Your task to perform on an android device: change the clock display to digital Image 0: 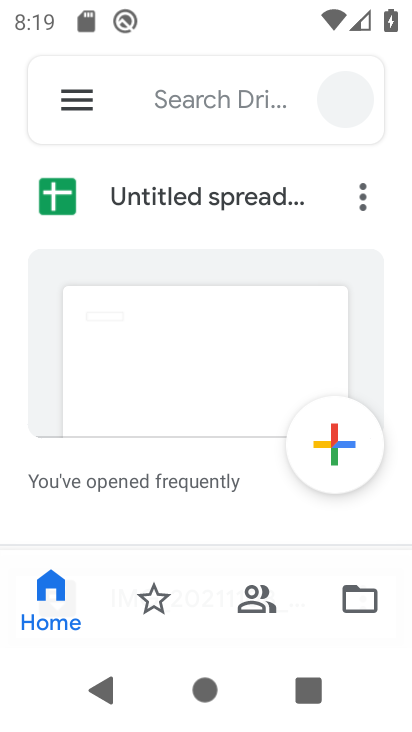
Step 0: press home button
Your task to perform on an android device: change the clock display to digital Image 1: 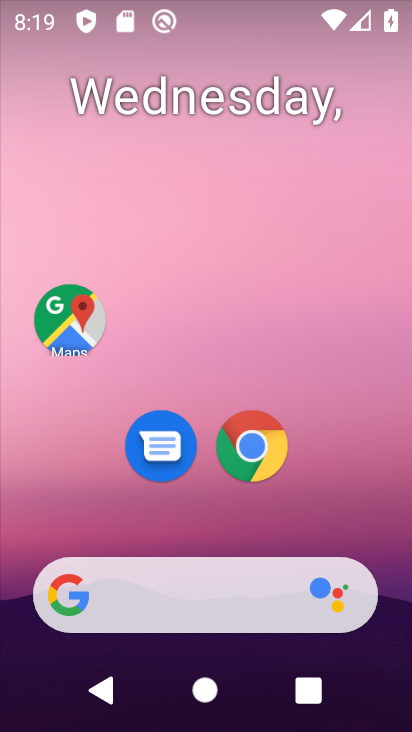
Step 1: drag from (201, 592) to (170, 84)
Your task to perform on an android device: change the clock display to digital Image 2: 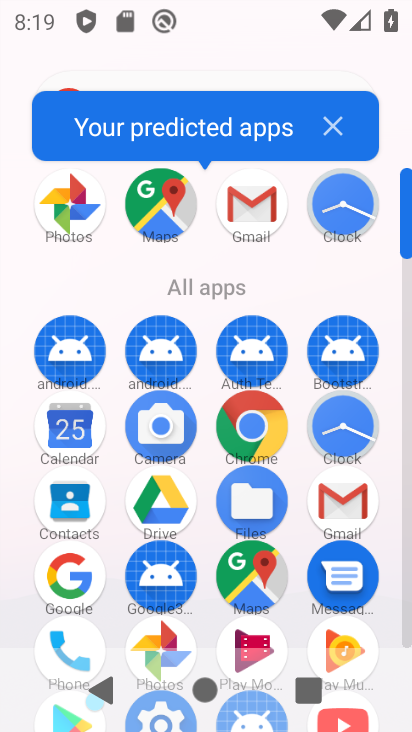
Step 2: click (340, 424)
Your task to perform on an android device: change the clock display to digital Image 3: 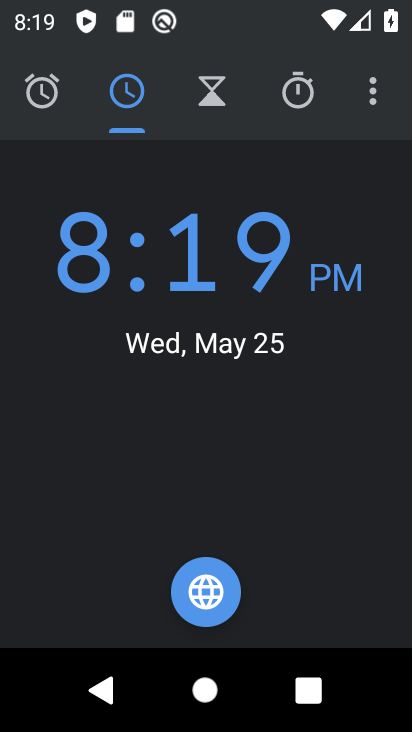
Step 3: click (375, 90)
Your task to perform on an android device: change the clock display to digital Image 4: 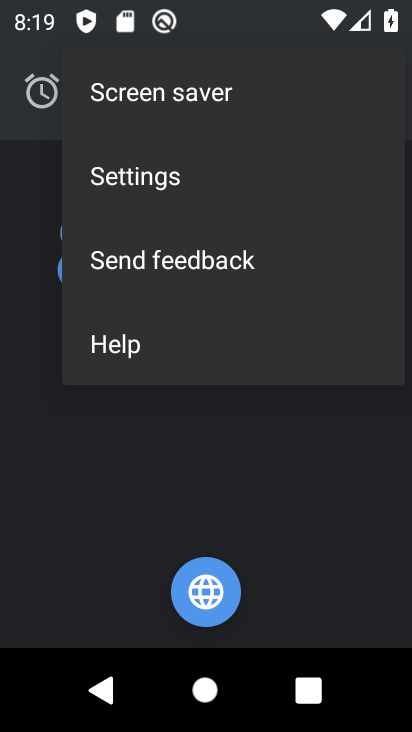
Step 4: click (147, 165)
Your task to perform on an android device: change the clock display to digital Image 5: 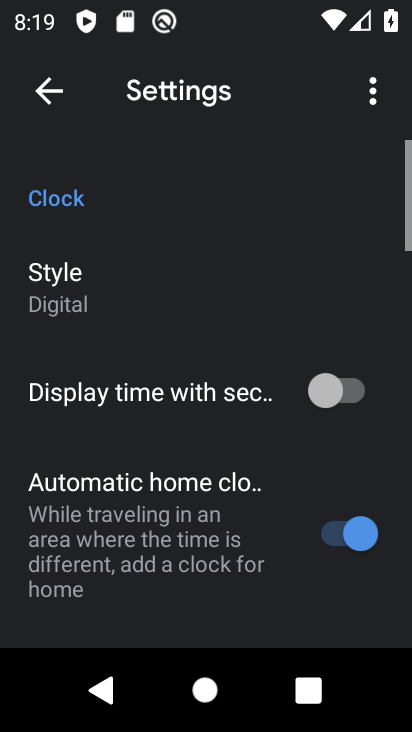
Step 5: click (84, 288)
Your task to perform on an android device: change the clock display to digital Image 6: 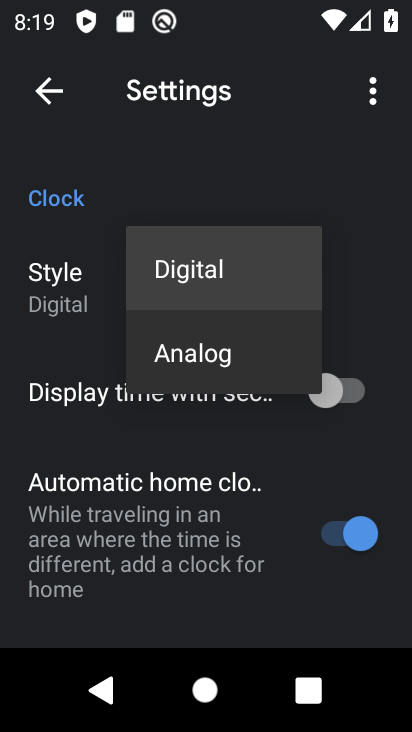
Step 6: click (179, 278)
Your task to perform on an android device: change the clock display to digital Image 7: 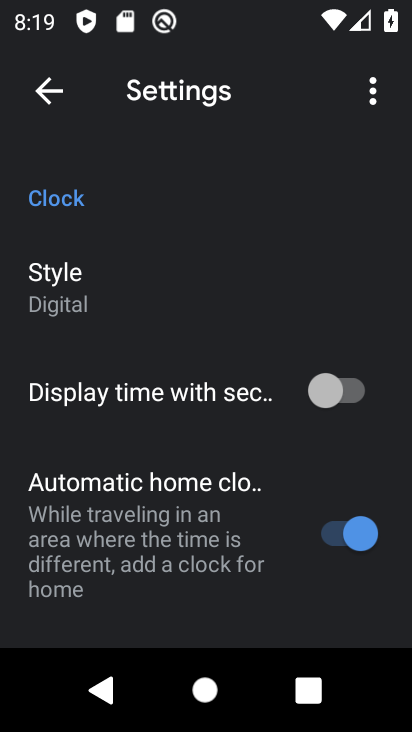
Step 7: task complete